Your task to perform on an android device: Open ESPN.com Image 0: 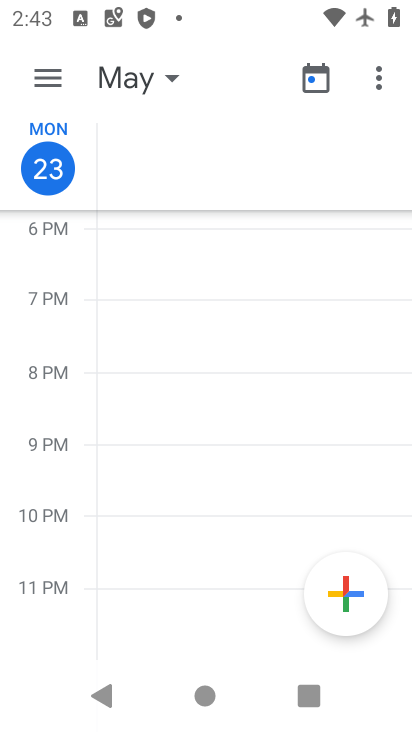
Step 0: press home button
Your task to perform on an android device: Open ESPN.com Image 1: 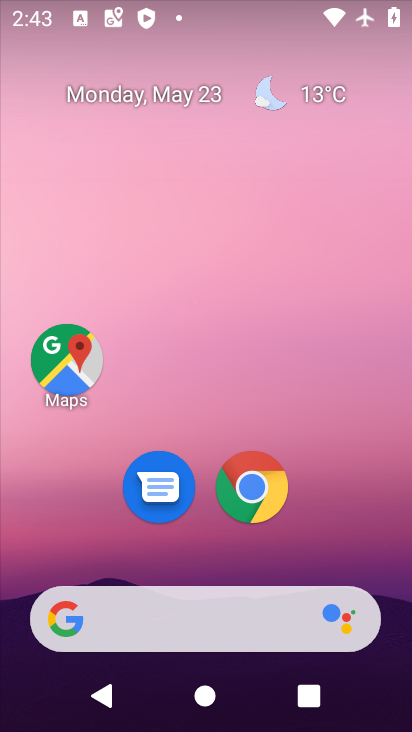
Step 1: click (256, 488)
Your task to perform on an android device: Open ESPN.com Image 2: 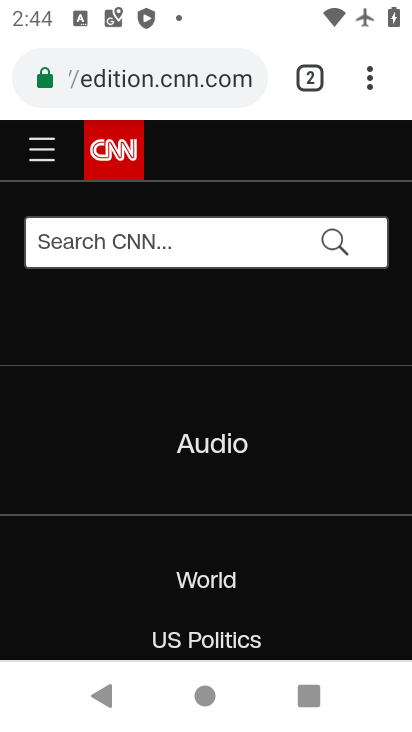
Step 2: click (147, 75)
Your task to perform on an android device: Open ESPN.com Image 3: 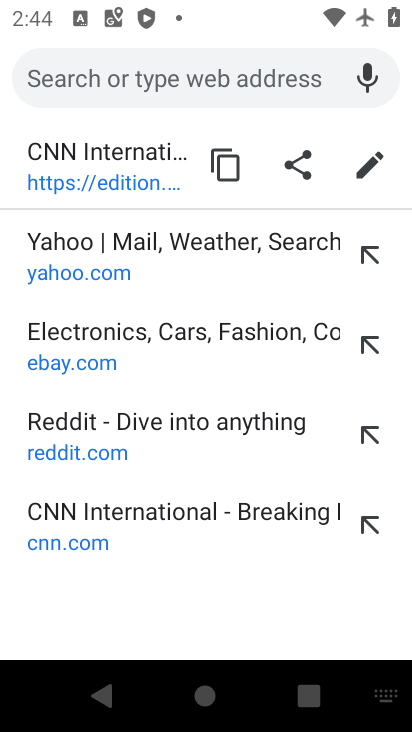
Step 3: type "espn.com"
Your task to perform on an android device: Open ESPN.com Image 4: 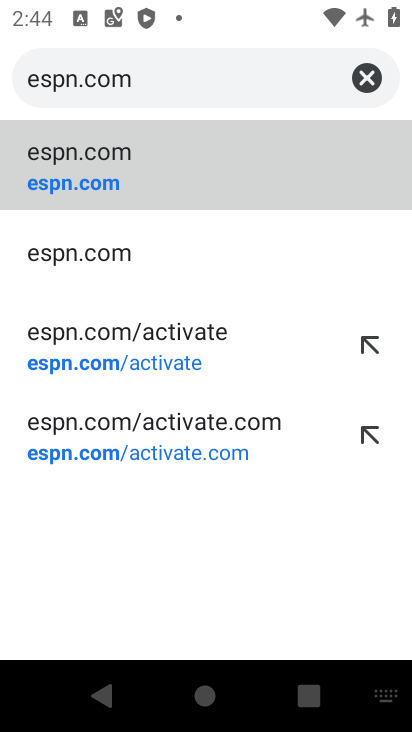
Step 4: click (70, 146)
Your task to perform on an android device: Open ESPN.com Image 5: 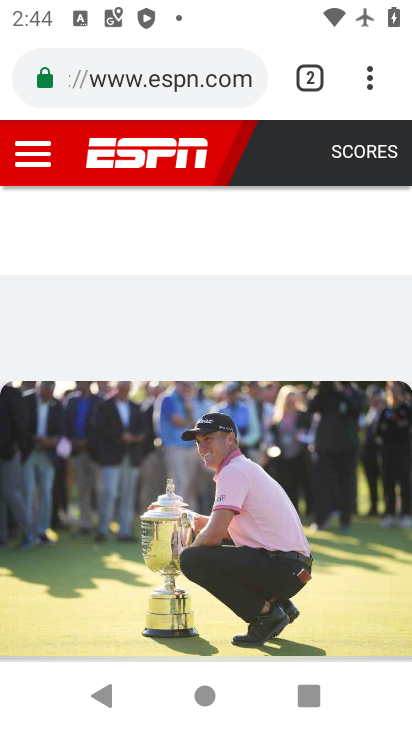
Step 5: task complete